Your task to perform on an android device: Clear all items from cart on amazon. Add bose soundsport free to the cart on amazon, then select checkout. Image 0: 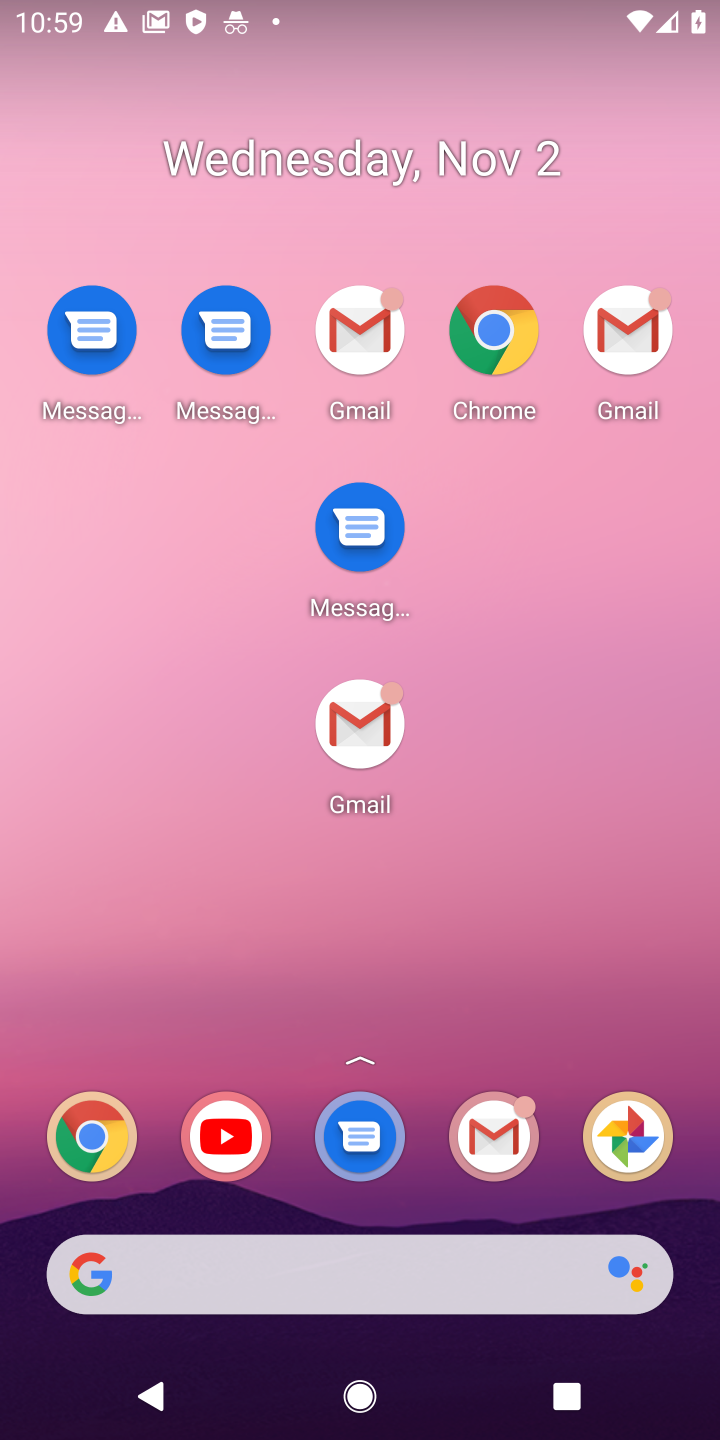
Step 0: drag from (258, 872) to (222, 267)
Your task to perform on an android device: Clear all items from cart on amazon. Add bose soundsport free to the cart on amazon, then select checkout. Image 1: 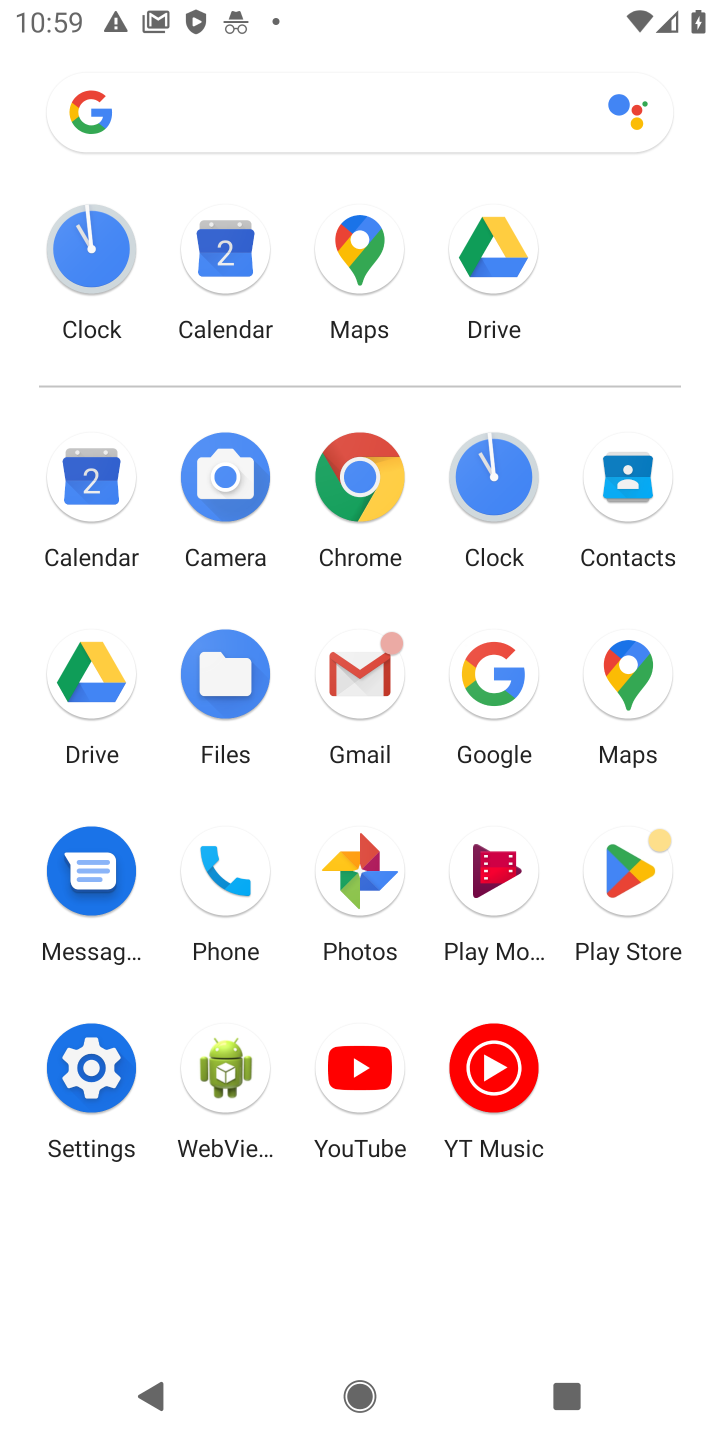
Step 1: click (506, 670)
Your task to perform on an android device: Clear all items from cart on amazon. Add bose soundsport free to the cart on amazon, then select checkout. Image 2: 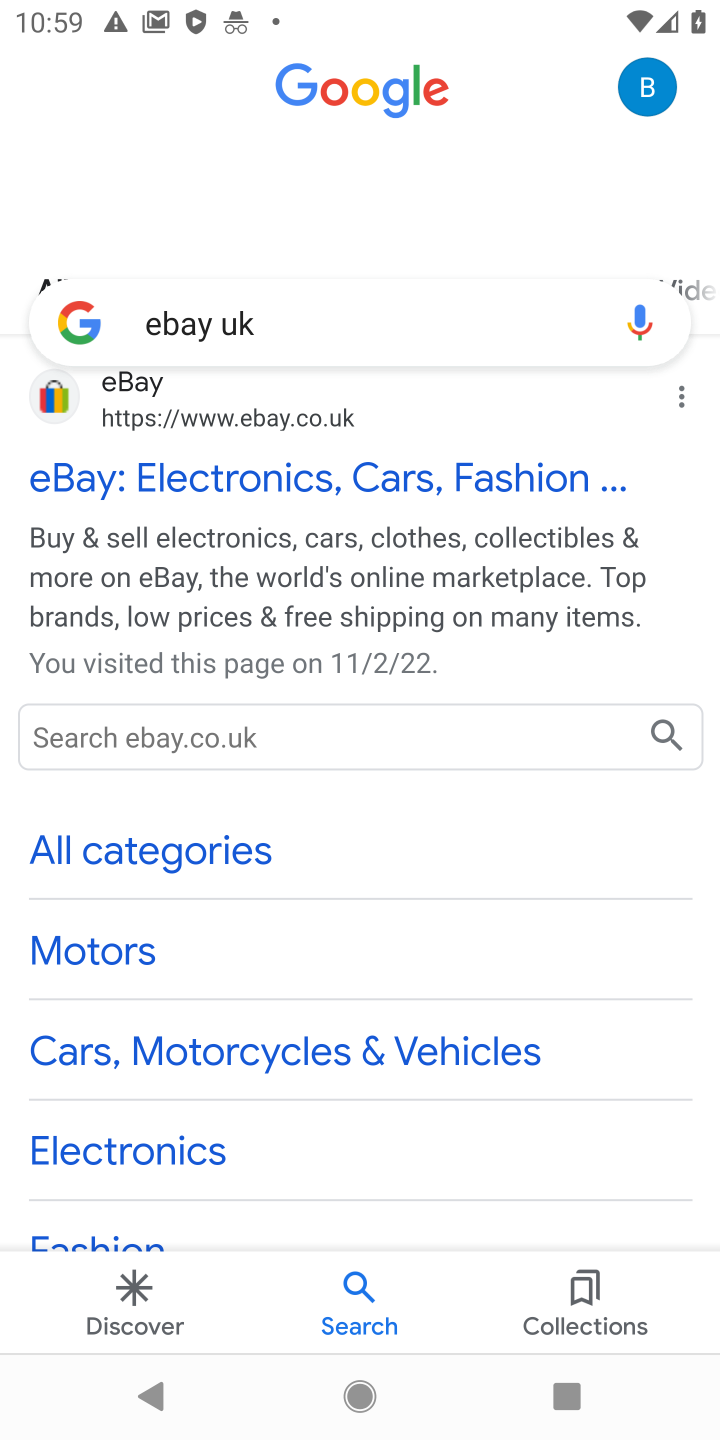
Step 2: click (296, 297)
Your task to perform on an android device: Clear all items from cart on amazon. Add bose soundsport free to the cart on amazon, then select checkout. Image 3: 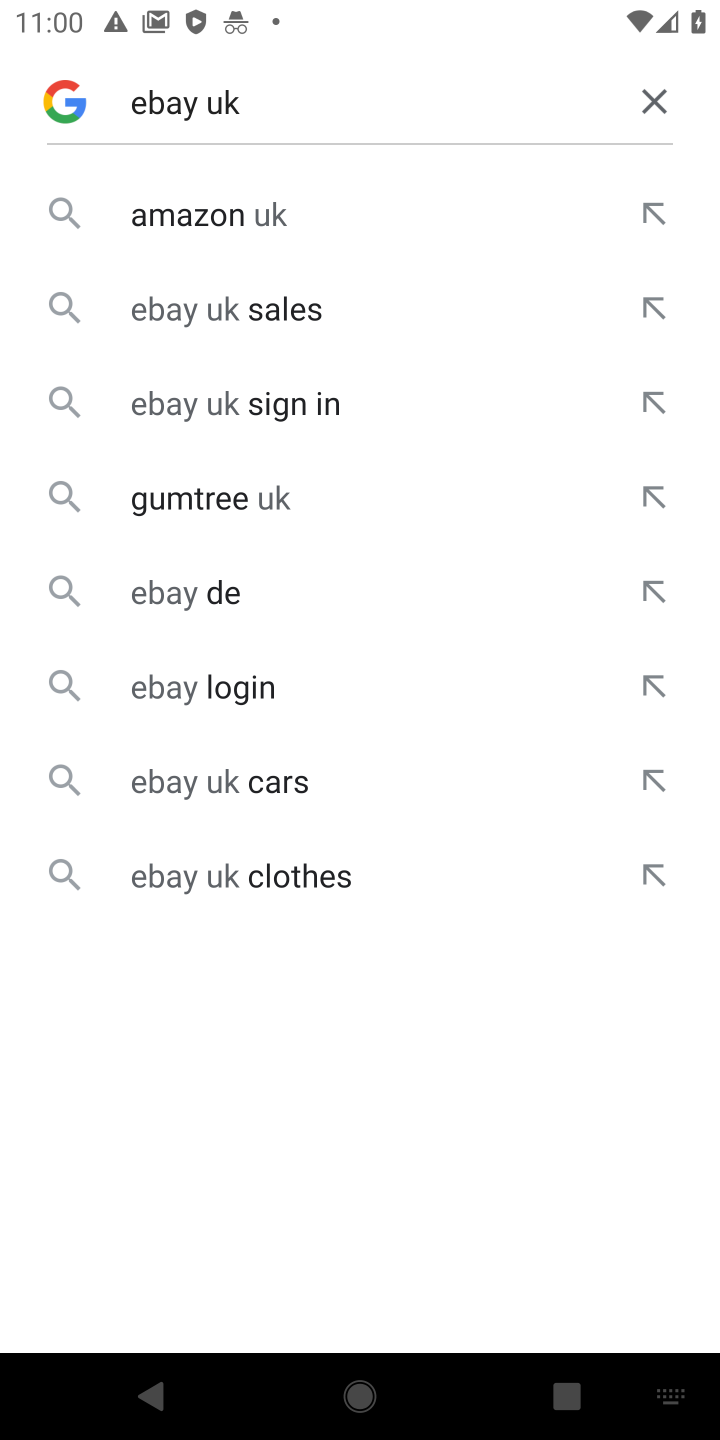
Step 3: click (654, 89)
Your task to perform on an android device: Clear all items from cart on amazon. Add bose soundsport free to the cart on amazon, then select checkout. Image 4: 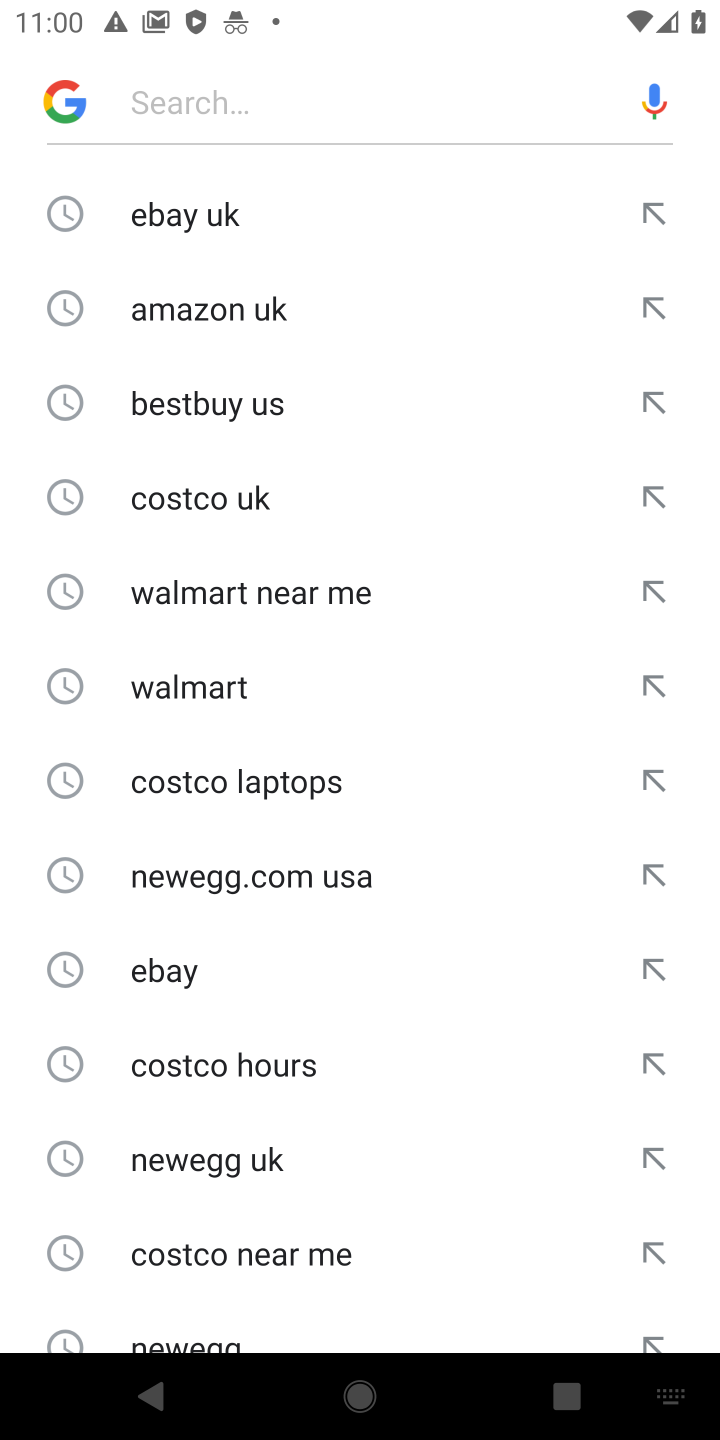
Step 4: click (286, 89)
Your task to perform on an android device: Clear all items from cart on amazon. Add bose soundsport free to the cart on amazon, then select checkout. Image 5: 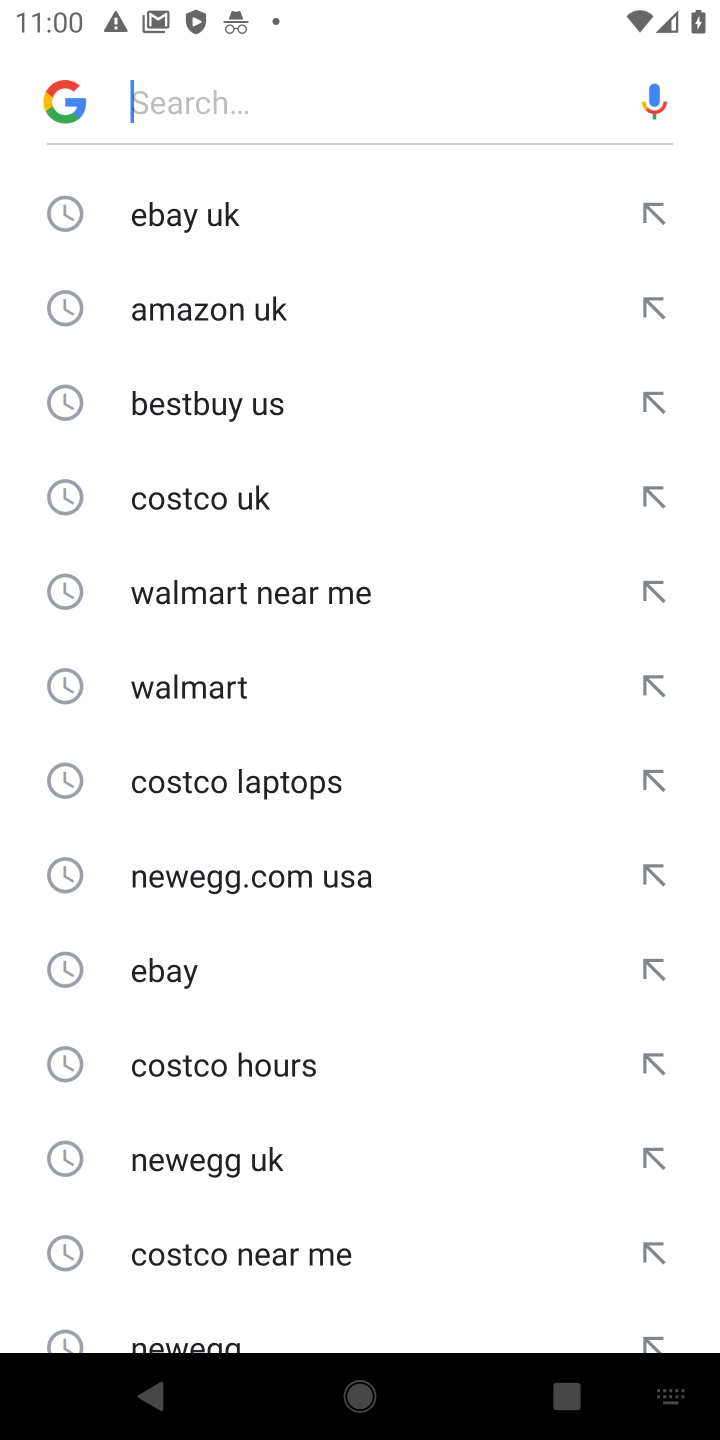
Step 5: type "amazon "
Your task to perform on an android device: Clear all items from cart on amazon. Add bose soundsport free to the cart on amazon, then select checkout. Image 6: 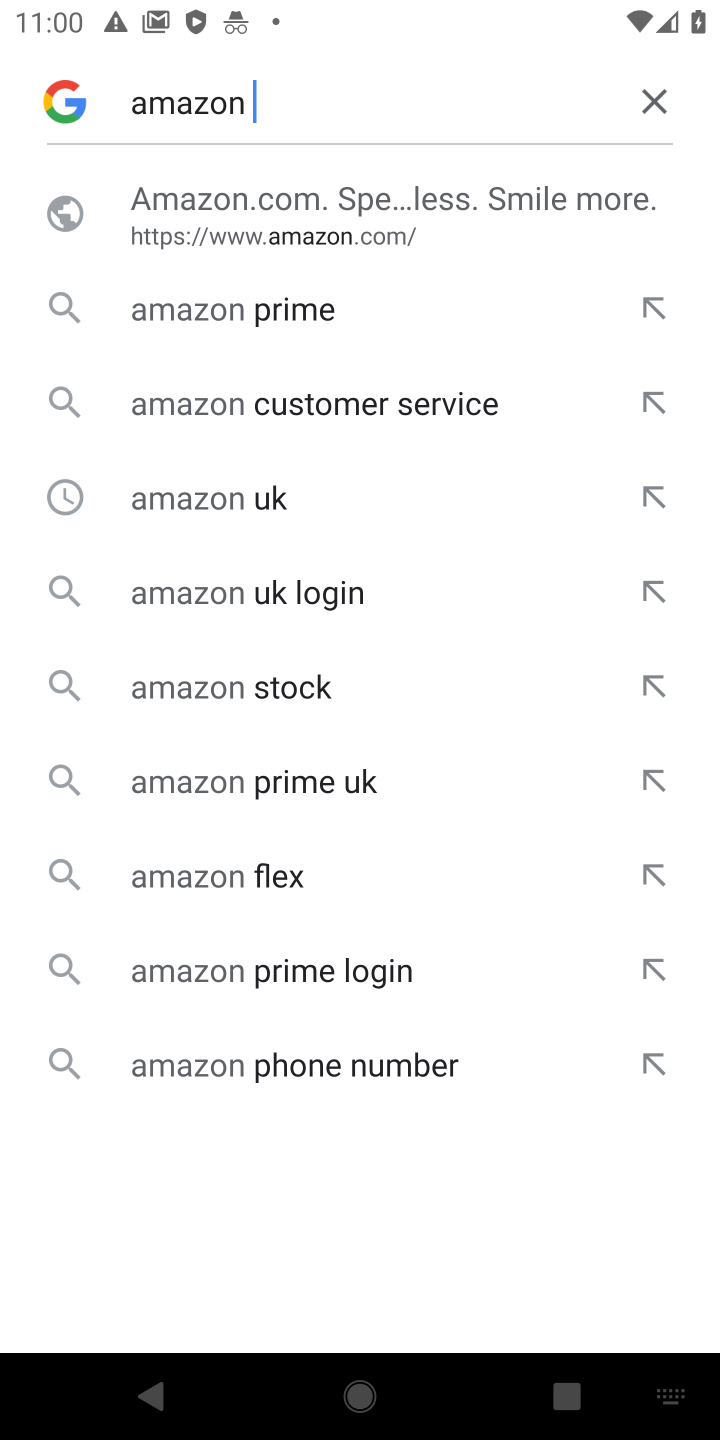
Step 6: click (337, 233)
Your task to perform on an android device: Clear all items from cart on amazon. Add bose soundsport free to the cart on amazon, then select checkout. Image 7: 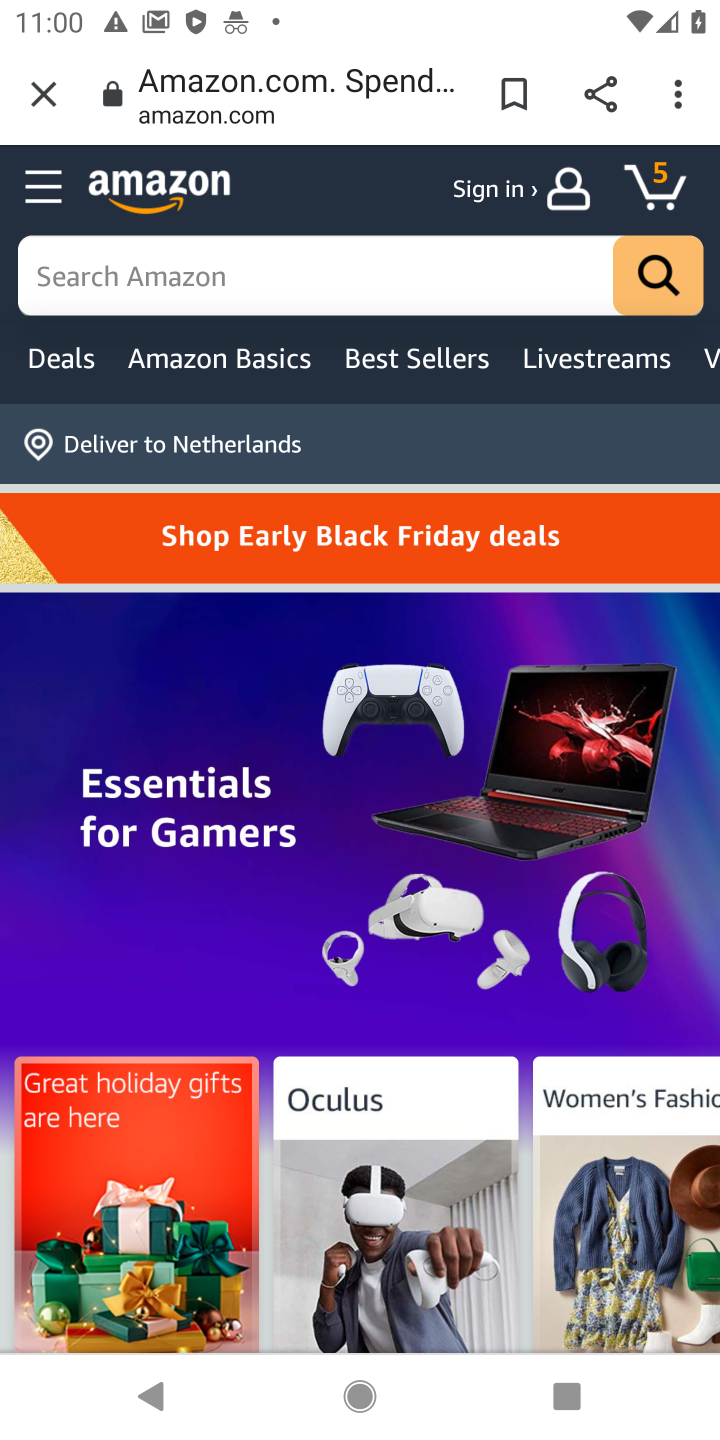
Step 7: click (260, 277)
Your task to perform on an android device: Clear all items from cart on amazon. Add bose soundsport free to the cart on amazon, then select checkout. Image 8: 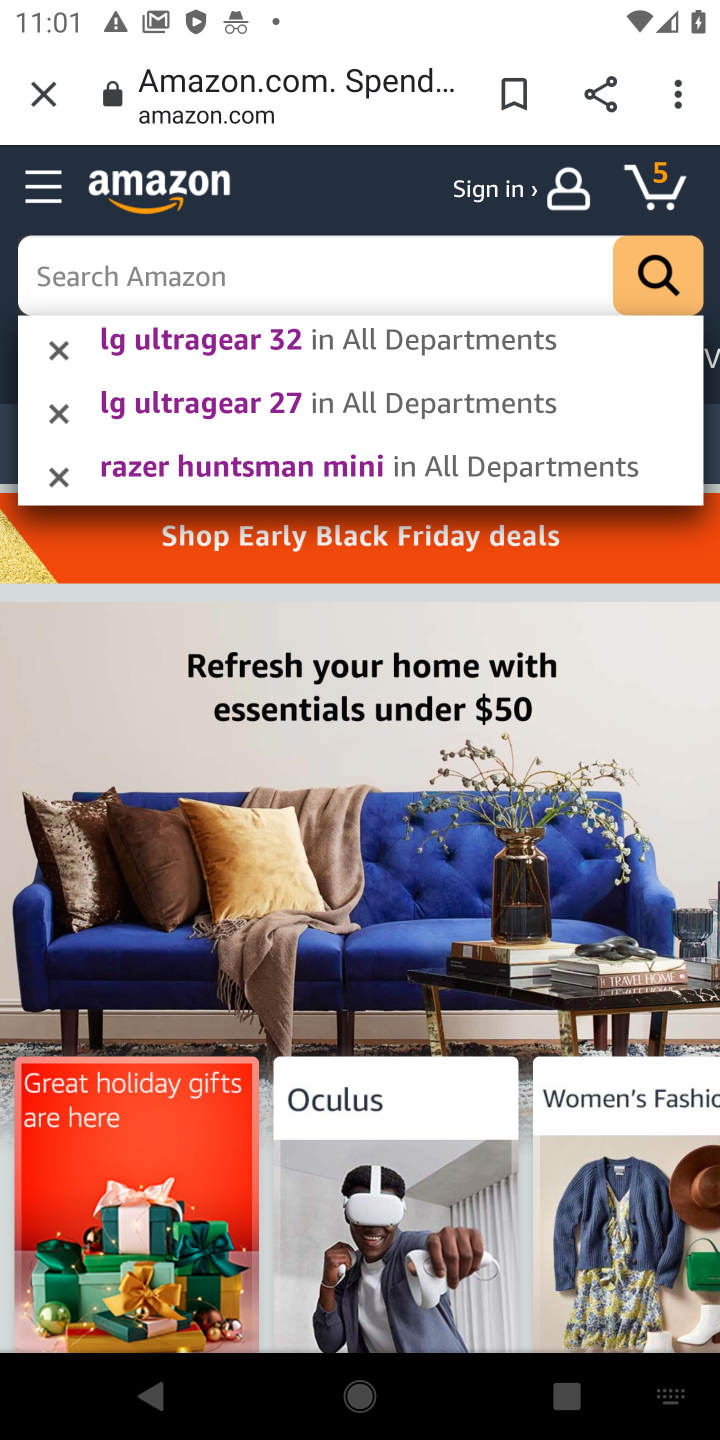
Step 8: type "bose soundsport "
Your task to perform on an android device: Clear all items from cart on amazon. Add bose soundsport free to the cart on amazon, then select checkout. Image 9: 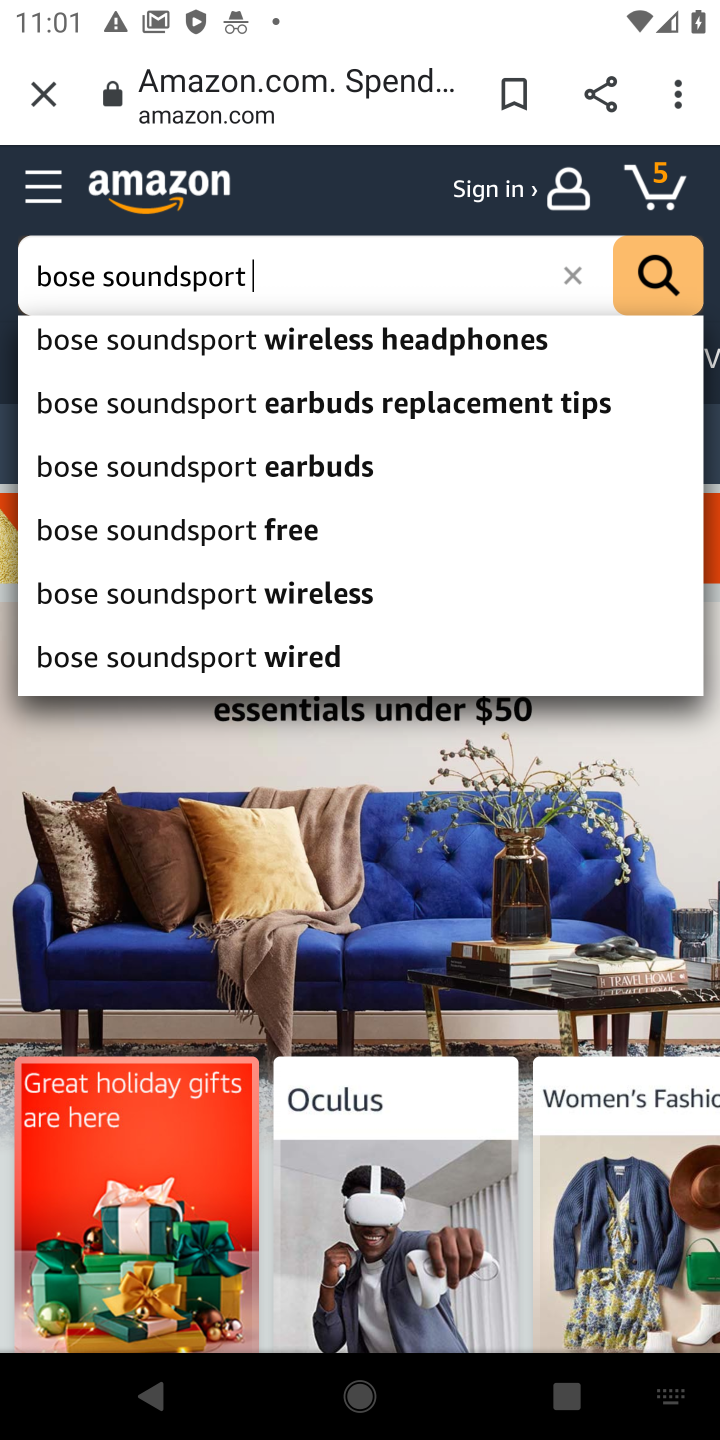
Step 9: click (307, 335)
Your task to perform on an android device: Clear all items from cart on amazon. Add bose soundsport free to the cart on amazon, then select checkout. Image 10: 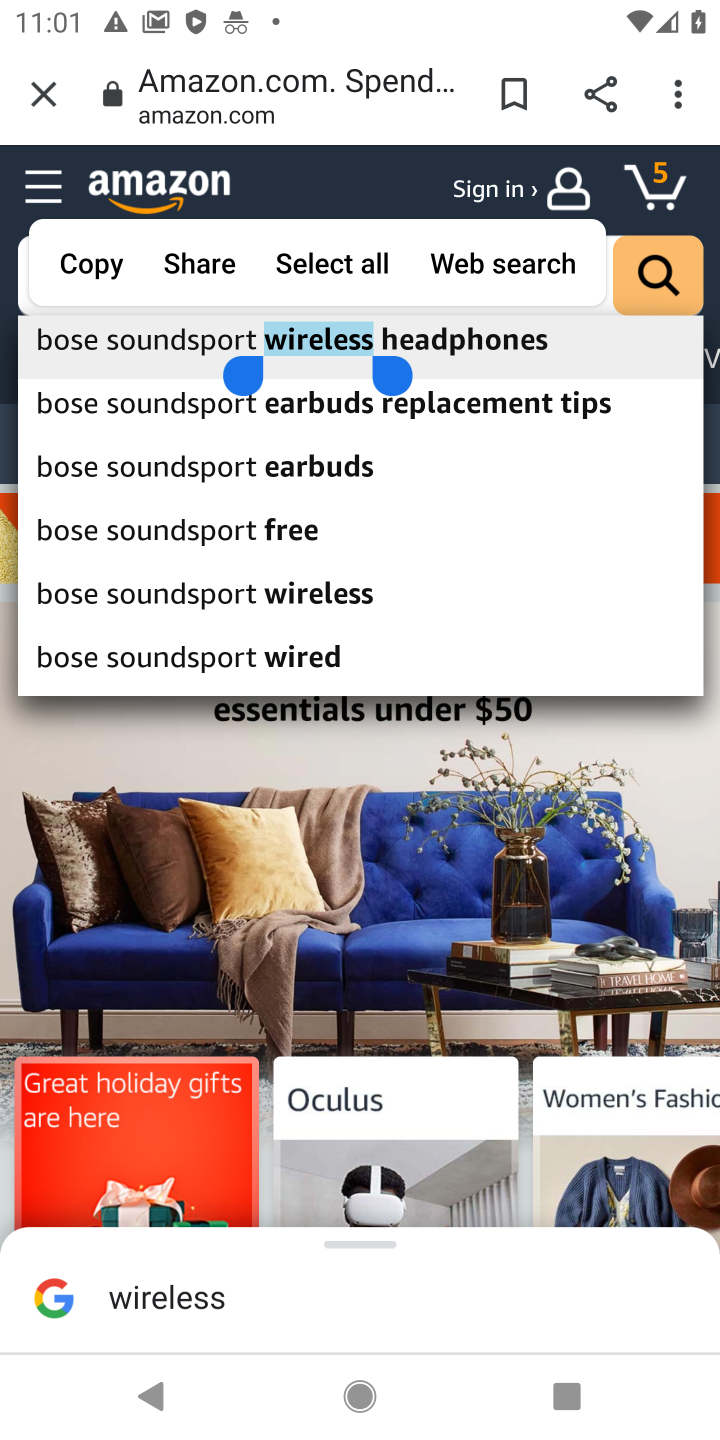
Step 10: click (647, 352)
Your task to perform on an android device: Clear all items from cart on amazon. Add bose soundsport free to the cart on amazon, then select checkout. Image 11: 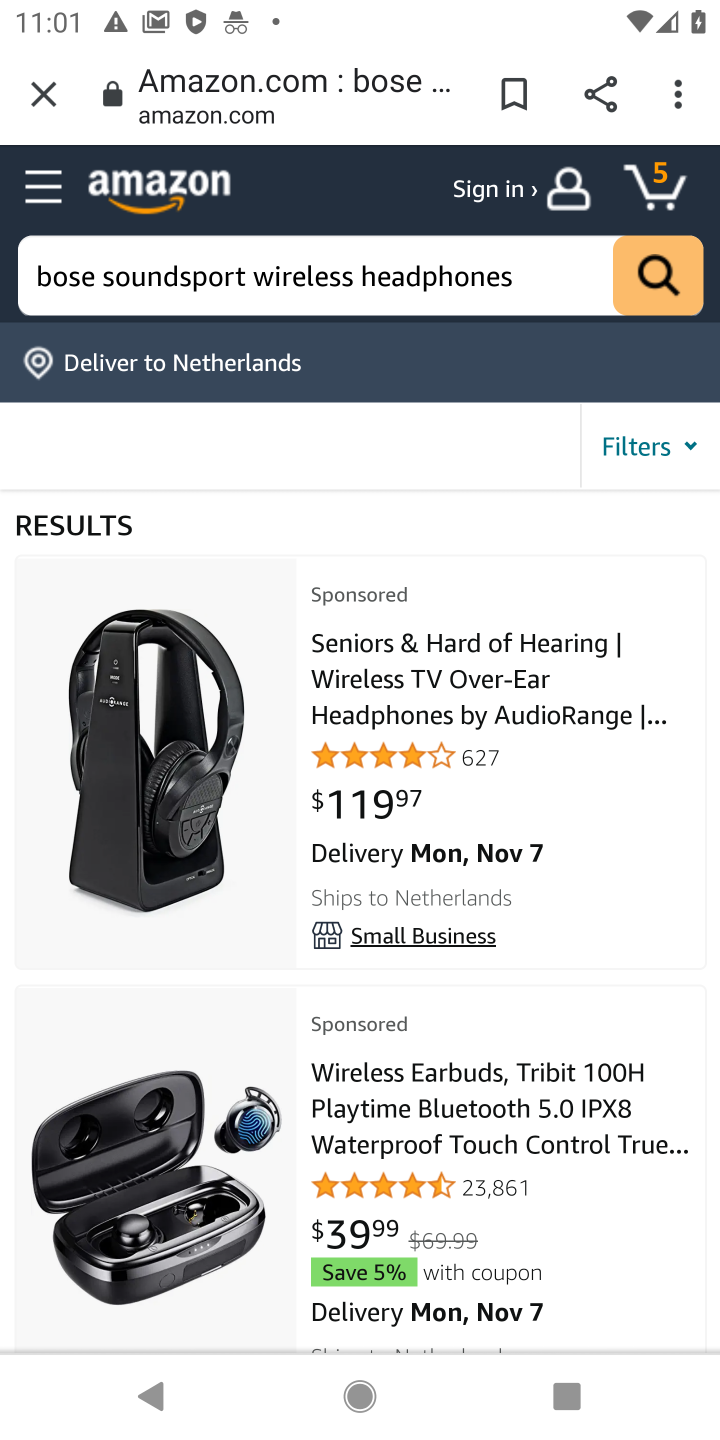
Step 11: click (512, 672)
Your task to perform on an android device: Clear all items from cart on amazon. Add bose soundsport free to the cart on amazon, then select checkout. Image 12: 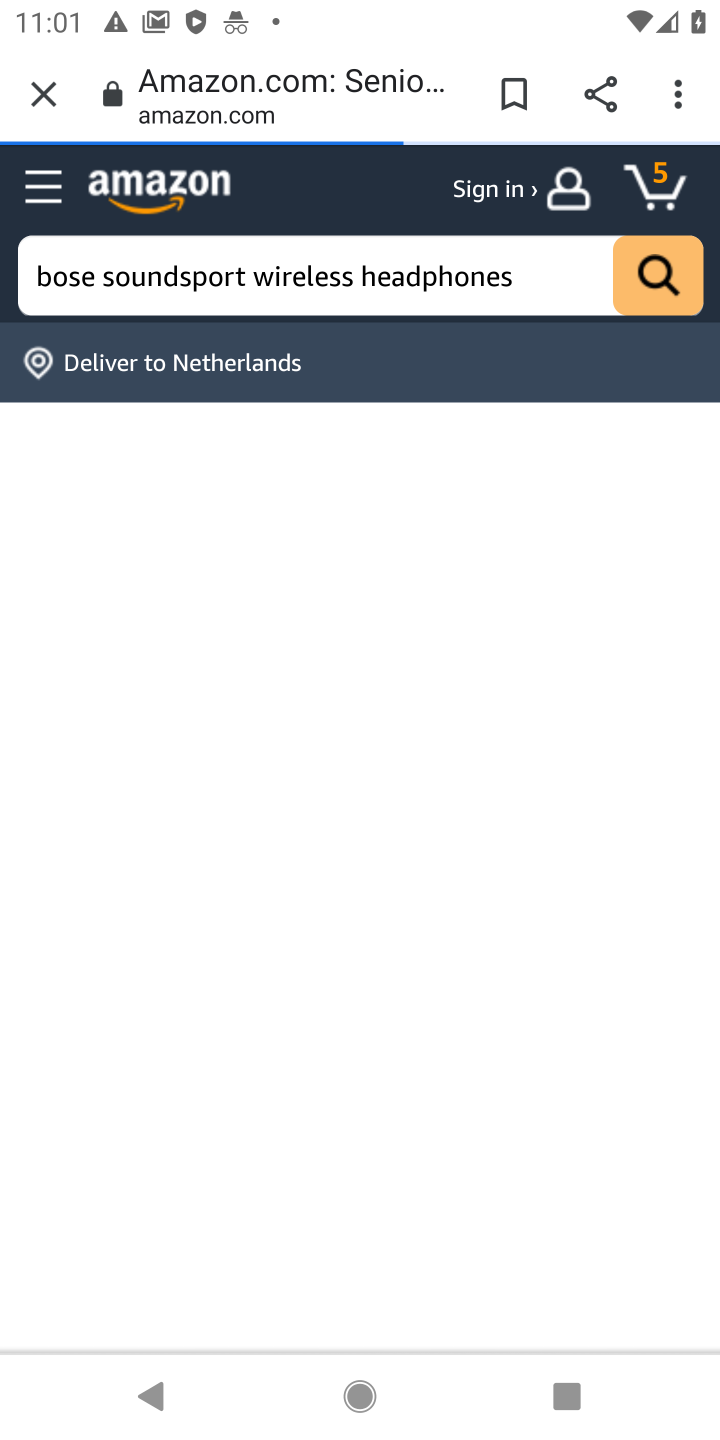
Step 12: click (512, 672)
Your task to perform on an android device: Clear all items from cart on amazon. Add bose soundsport free to the cart on amazon, then select checkout. Image 13: 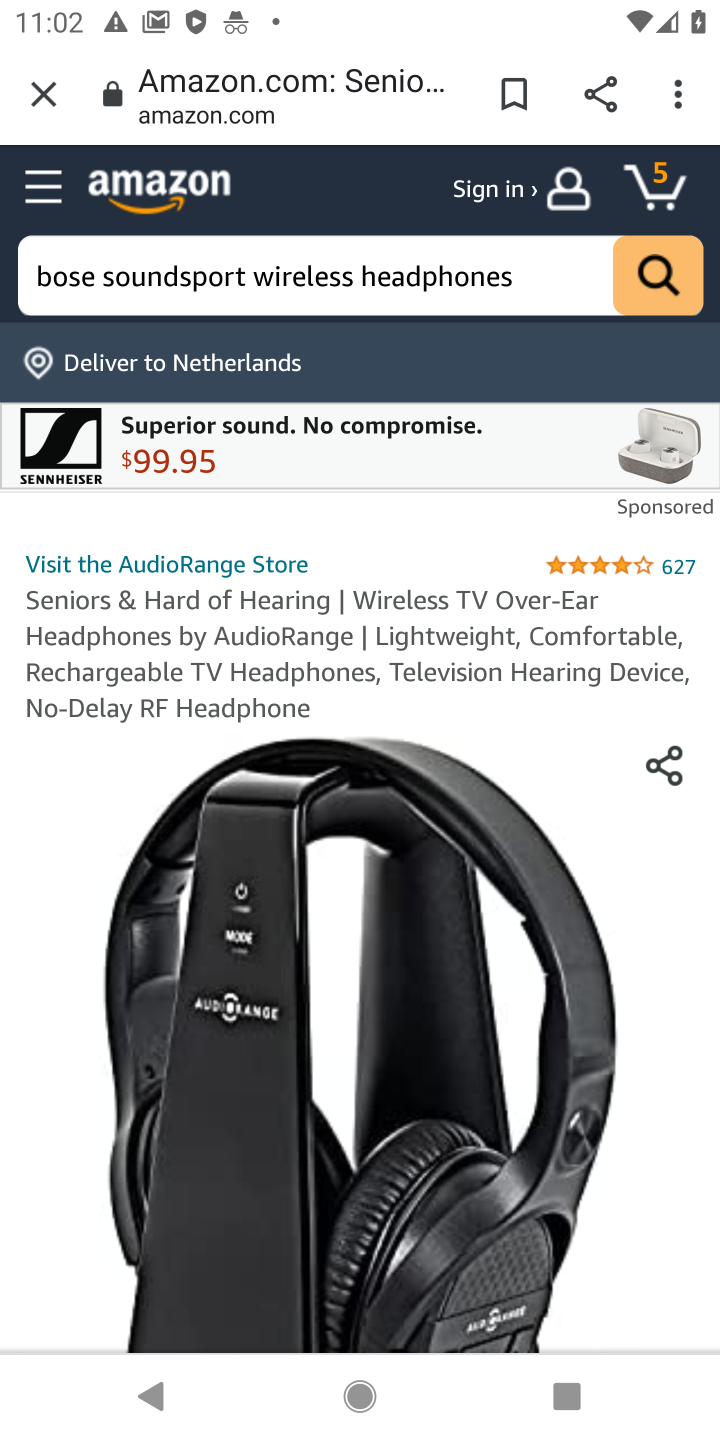
Step 13: drag from (379, 1237) to (407, 408)
Your task to perform on an android device: Clear all items from cart on amazon. Add bose soundsport free to the cart on amazon, then select checkout. Image 14: 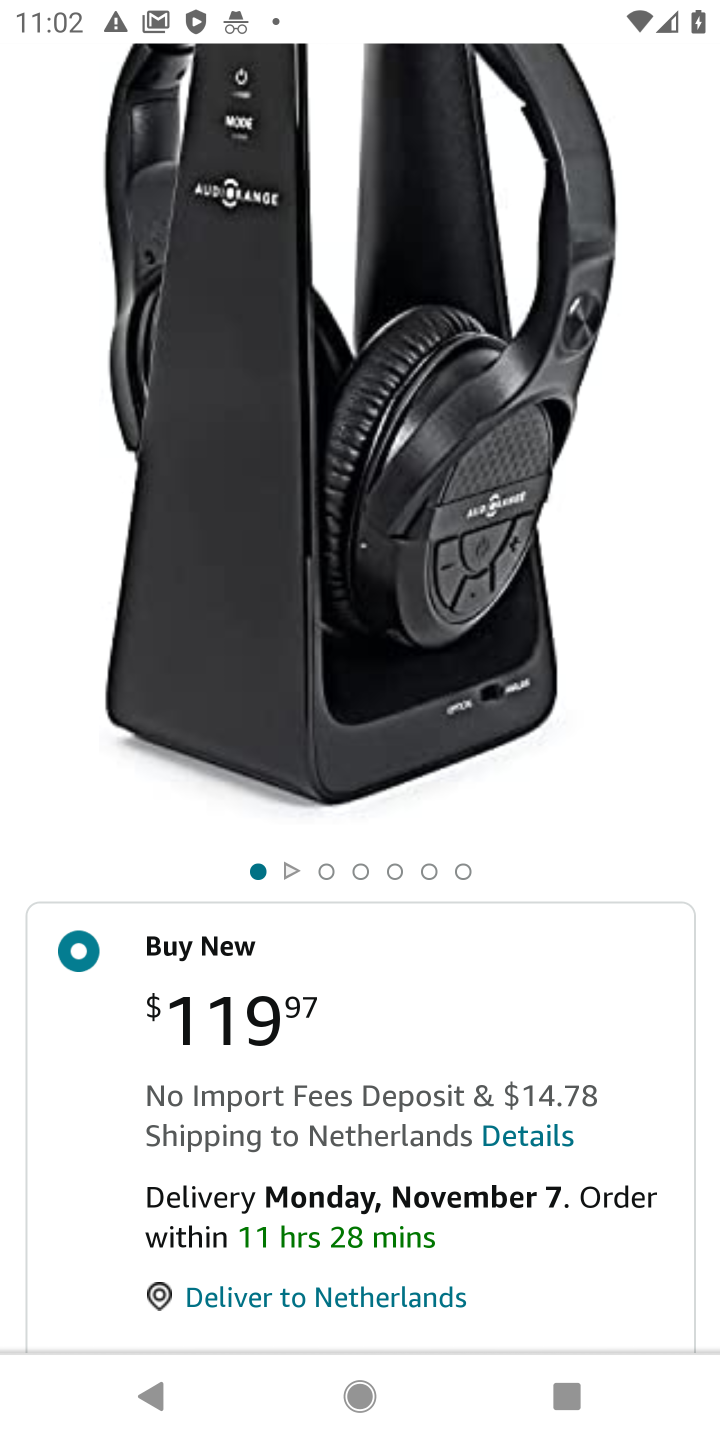
Step 14: drag from (456, 1189) to (497, 229)
Your task to perform on an android device: Clear all items from cart on amazon. Add bose soundsport free to the cart on amazon, then select checkout. Image 15: 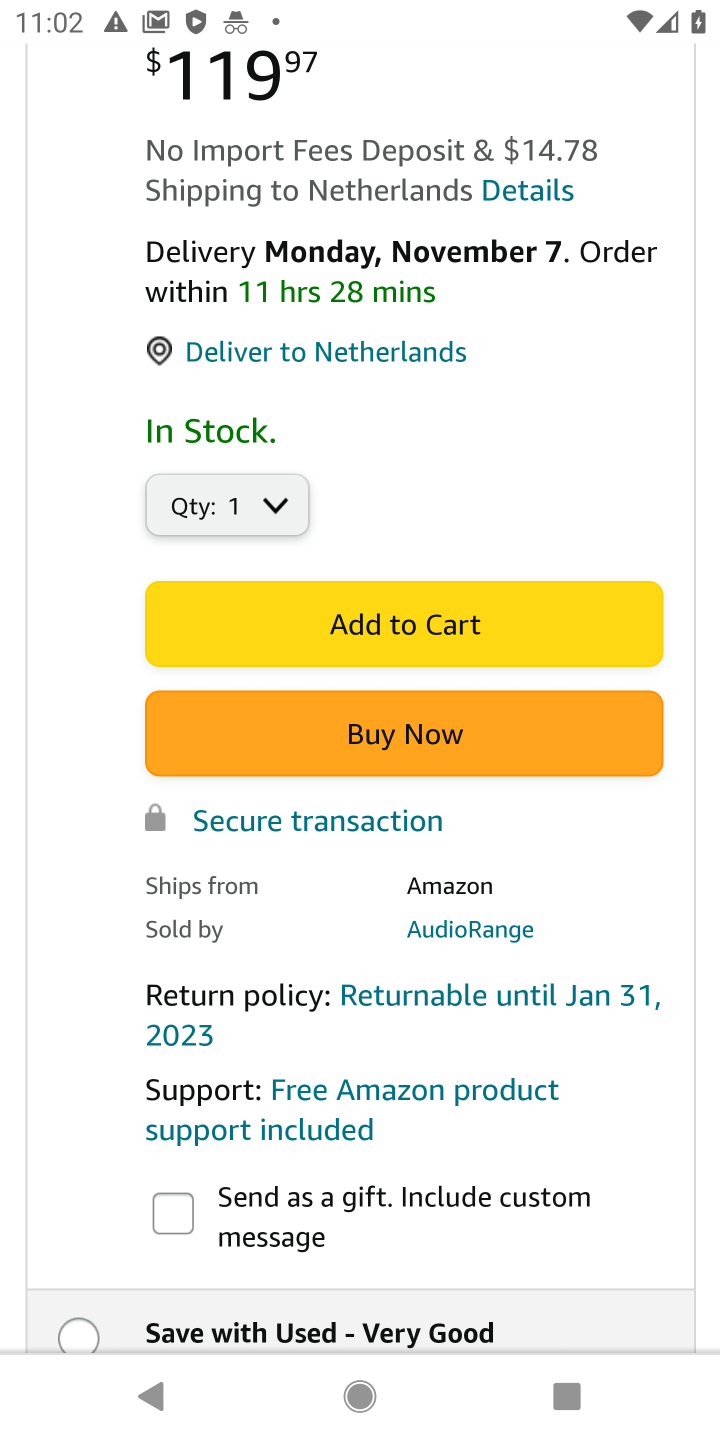
Step 15: click (481, 621)
Your task to perform on an android device: Clear all items from cart on amazon. Add bose soundsport free to the cart on amazon, then select checkout. Image 16: 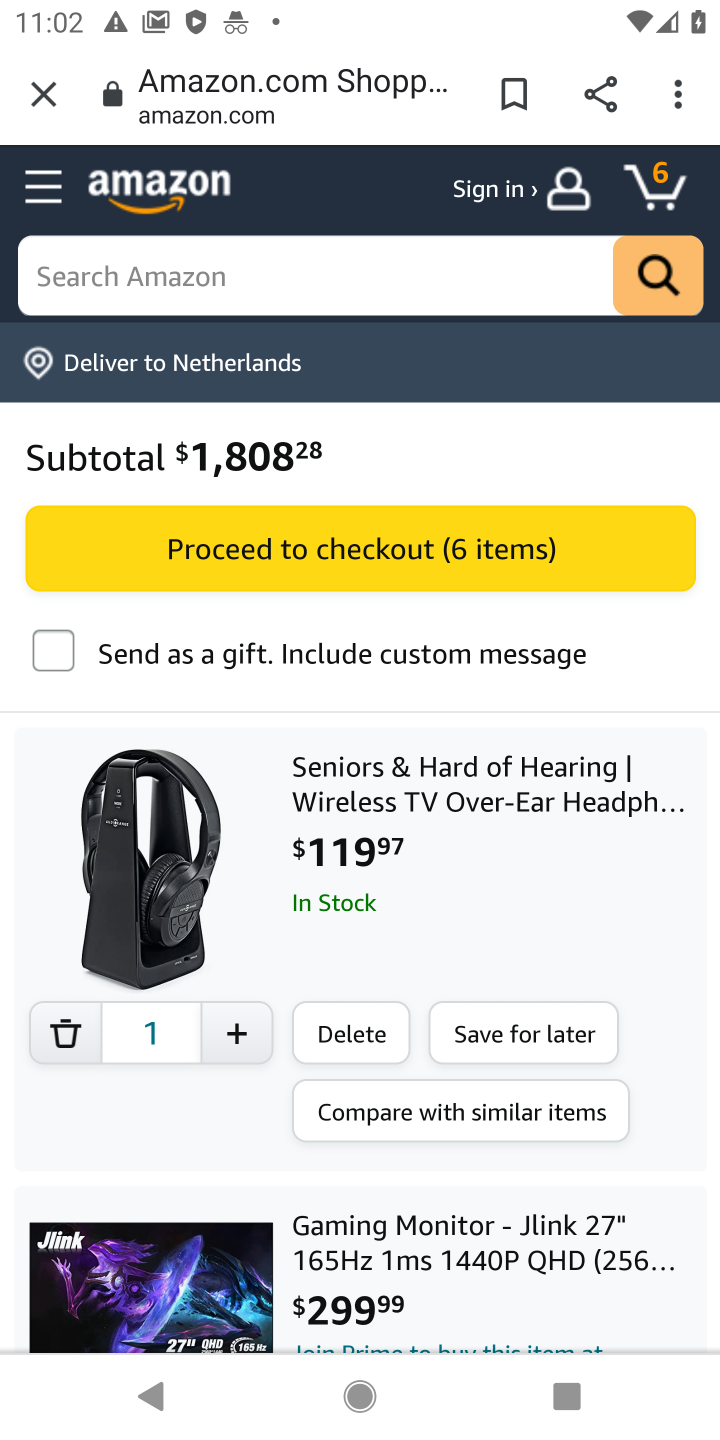
Step 16: task complete